Your task to perform on an android device: Go to internet settings Image 0: 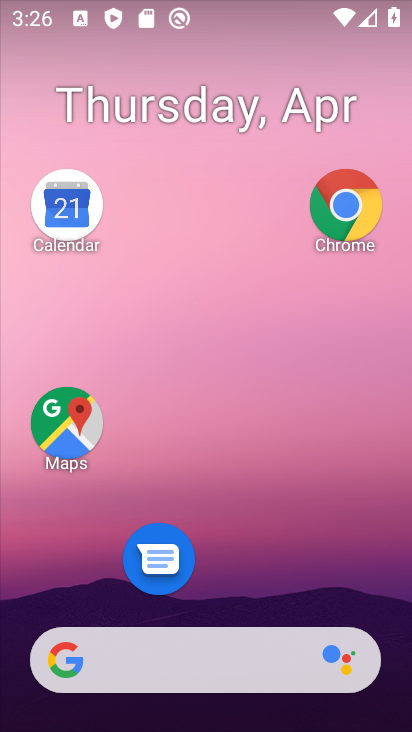
Step 0: drag from (260, 459) to (260, 72)
Your task to perform on an android device: Go to internet settings Image 1: 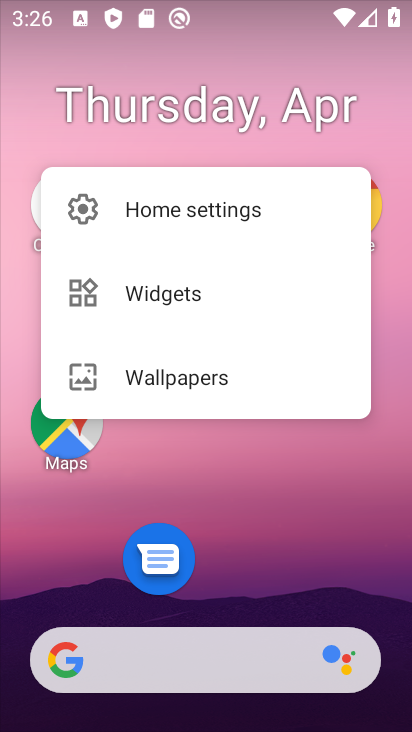
Step 1: click (329, 509)
Your task to perform on an android device: Go to internet settings Image 2: 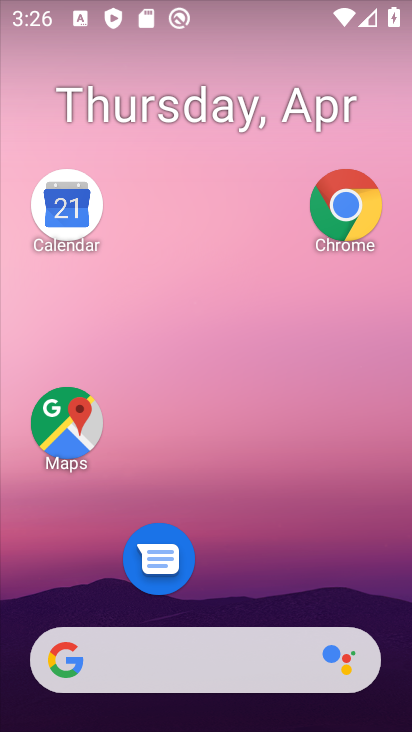
Step 2: drag from (290, 601) to (311, 2)
Your task to perform on an android device: Go to internet settings Image 3: 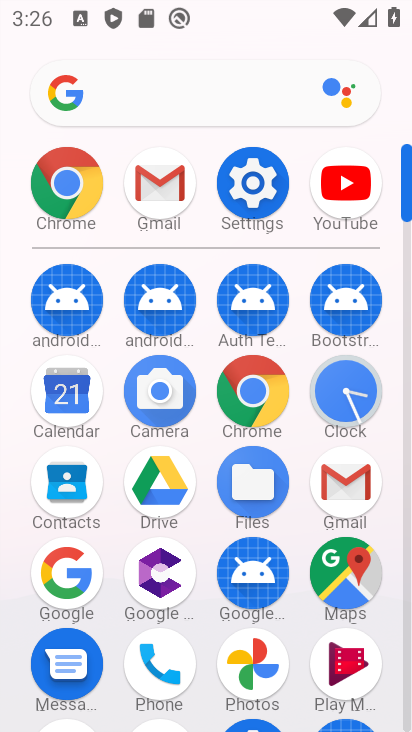
Step 3: click (257, 168)
Your task to perform on an android device: Go to internet settings Image 4: 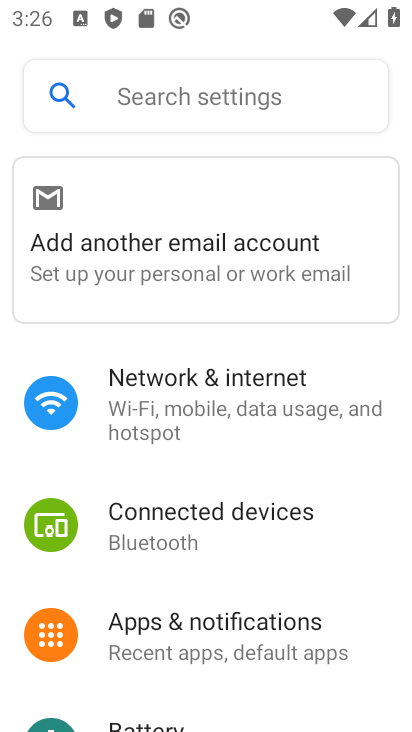
Step 4: click (216, 394)
Your task to perform on an android device: Go to internet settings Image 5: 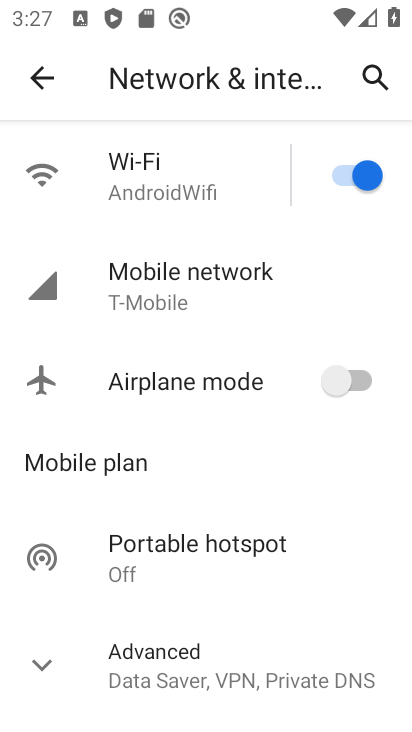
Step 5: click (236, 279)
Your task to perform on an android device: Go to internet settings Image 6: 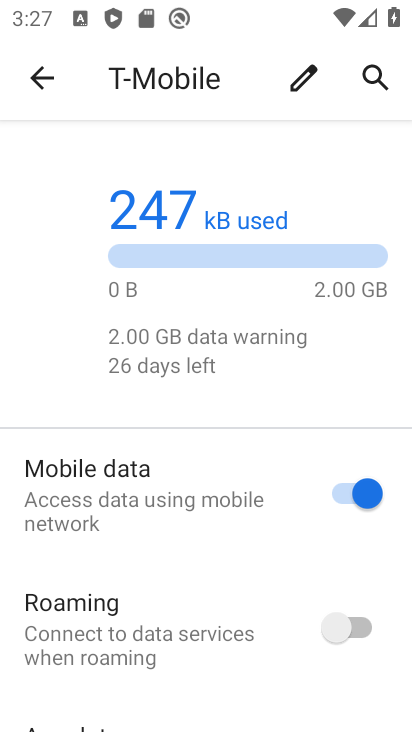
Step 6: task complete